Your task to perform on an android device: turn smart compose on in the gmail app Image 0: 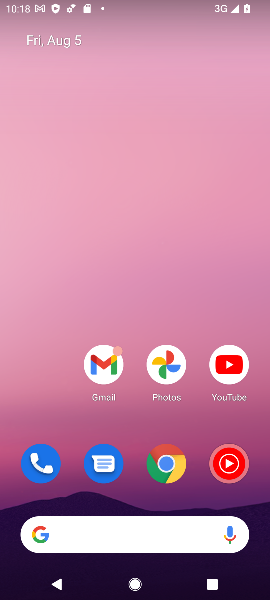
Step 0: drag from (124, 506) to (127, 196)
Your task to perform on an android device: turn smart compose on in the gmail app Image 1: 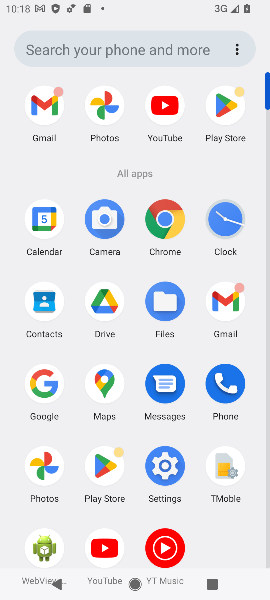
Step 1: click (214, 301)
Your task to perform on an android device: turn smart compose on in the gmail app Image 2: 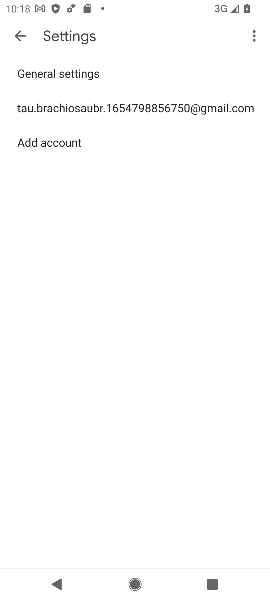
Step 2: click (11, 38)
Your task to perform on an android device: turn smart compose on in the gmail app Image 3: 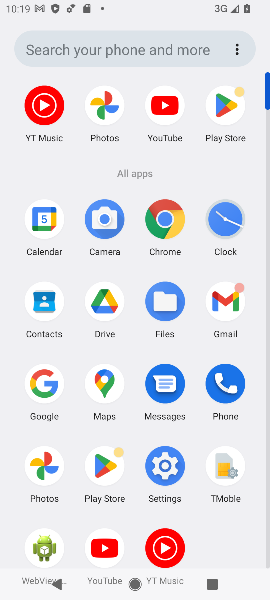
Step 3: click (214, 296)
Your task to perform on an android device: turn smart compose on in the gmail app Image 4: 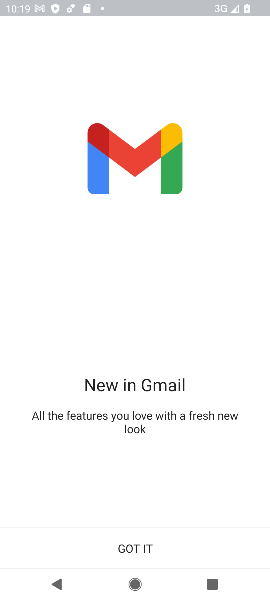
Step 4: click (124, 538)
Your task to perform on an android device: turn smart compose on in the gmail app Image 5: 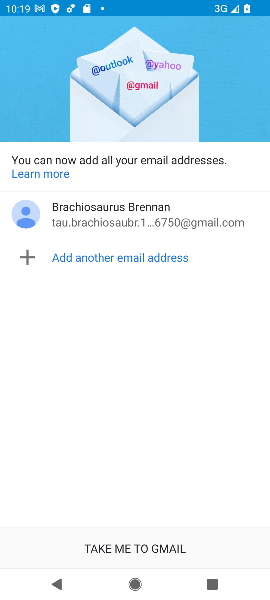
Step 5: click (124, 538)
Your task to perform on an android device: turn smart compose on in the gmail app Image 6: 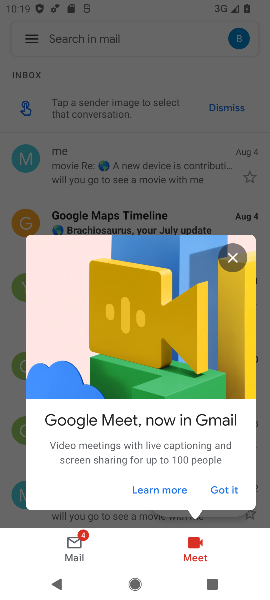
Step 6: click (222, 482)
Your task to perform on an android device: turn smart compose on in the gmail app Image 7: 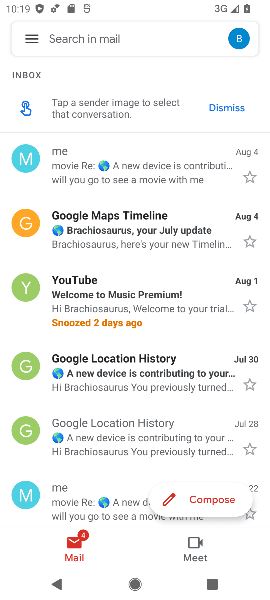
Step 7: click (16, 39)
Your task to perform on an android device: turn smart compose on in the gmail app Image 8: 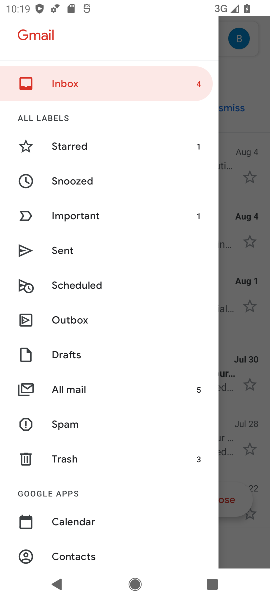
Step 8: drag from (80, 549) to (129, 136)
Your task to perform on an android device: turn smart compose on in the gmail app Image 9: 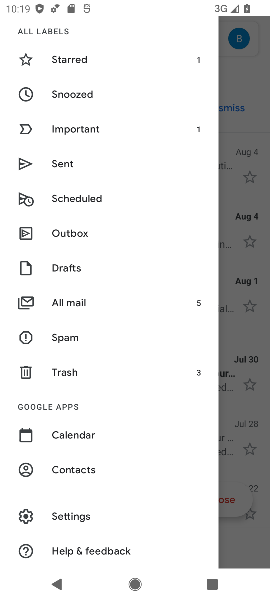
Step 9: click (80, 518)
Your task to perform on an android device: turn smart compose on in the gmail app Image 10: 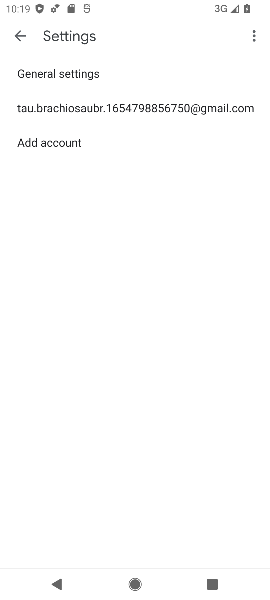
Step 10: click (77, 109)
Your task to perform on an android device: turn smart compose on in the gmail app Image 11: 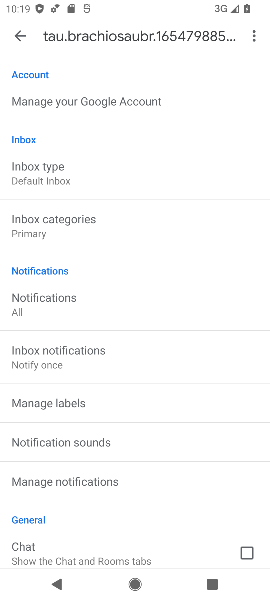
Step 11: task complete